Your task to perform on an android device: See recent photos Image 0: 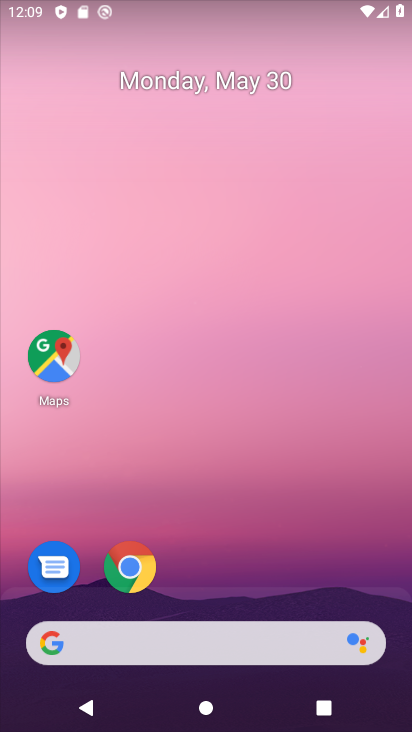
Step 0: press home button
Your task to perform on an android device: See recent photos Image 1: 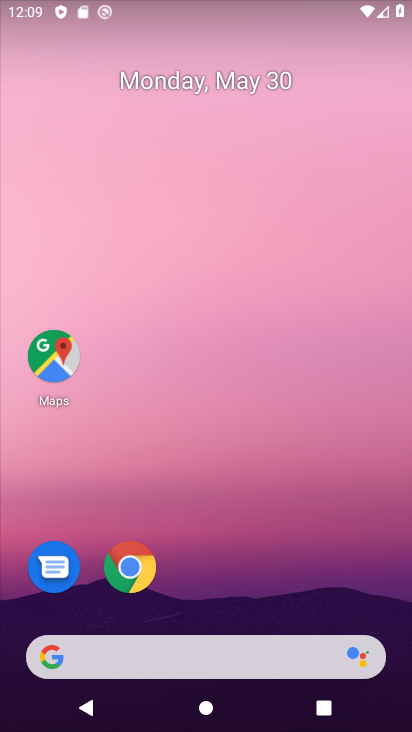
Step 1: drag from (213, 610) to (191, 66)
Your task to perform on an android device: See recent photos Image 2: 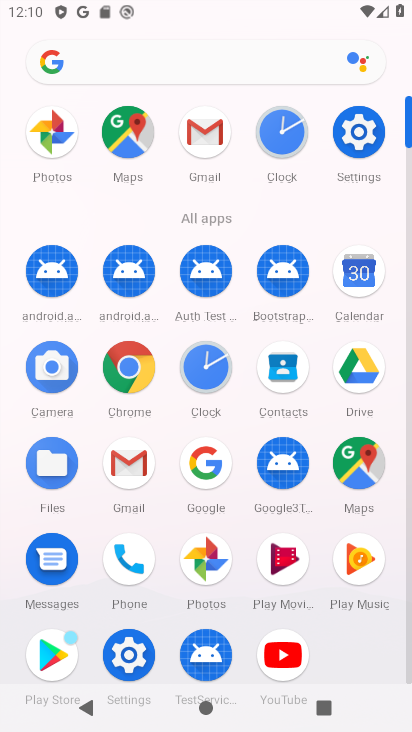
Step 2: click (201, 547)
Your task to perform on an android device: See recent photos Image 3: 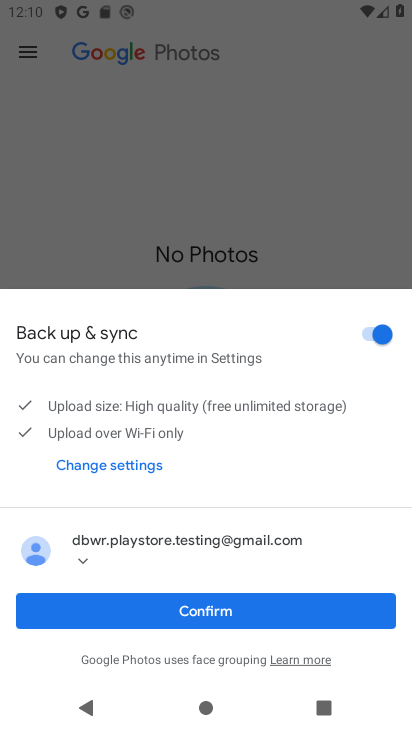
Step 3: click (209, 610)
Your task to perform on an android device: See recent photos Image 4: 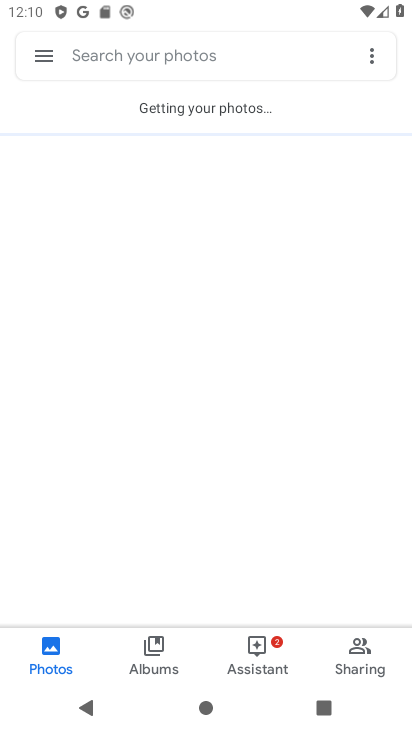
Step 4: task complete